Your task to perform on an android device: toggle wifi Image 0: 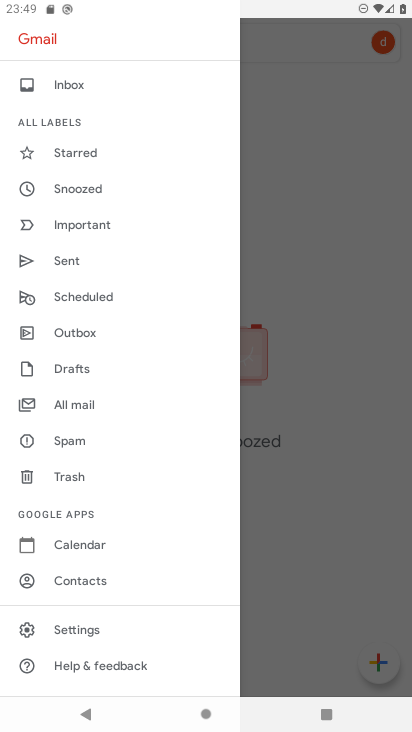
Step 0: press home button
Your task to perform on an android device: toggle wifi Image 1: 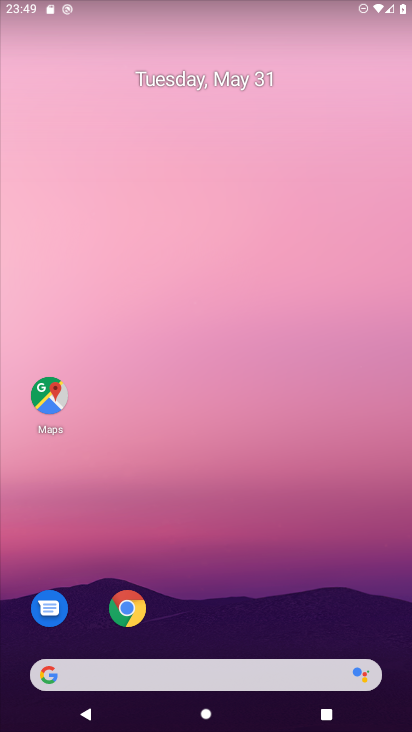
Step 1: drag from (301, 8) to (236, 723)
Your task to perform on an android device: toggle wifi Image 2: 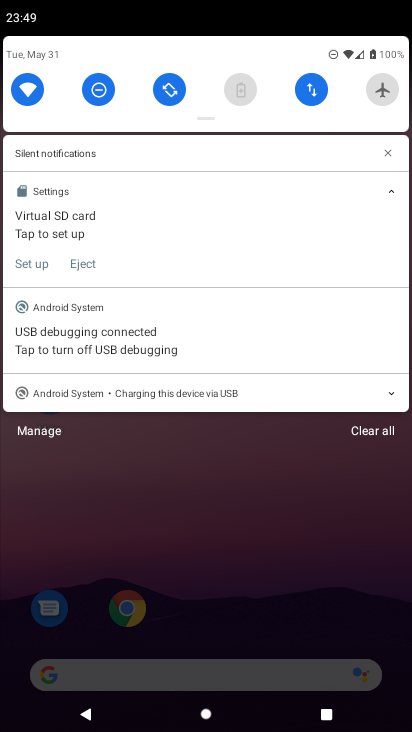
Step 2: click (39, 78)
Your task to perform on an android device: toggle wifi Image 3: 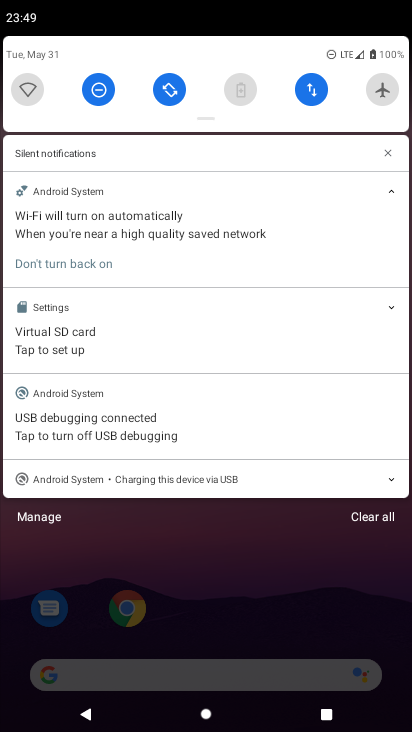
Step 3: task complete